Your task to perform on an android device: Go to location settings Image 0: 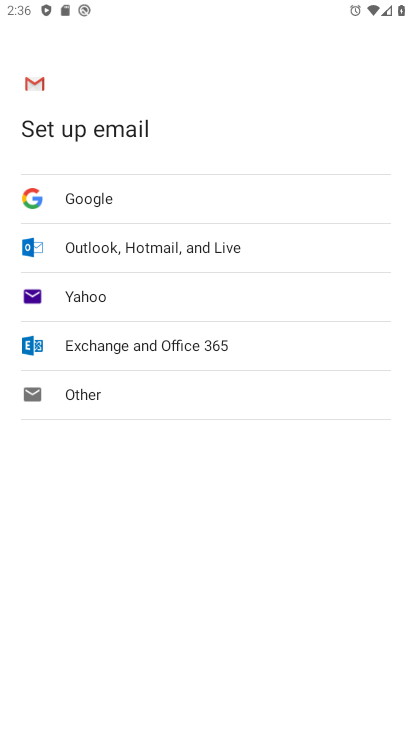
Step 0: press home button
Your task to perform on an android device: Go to location settings Image 1: 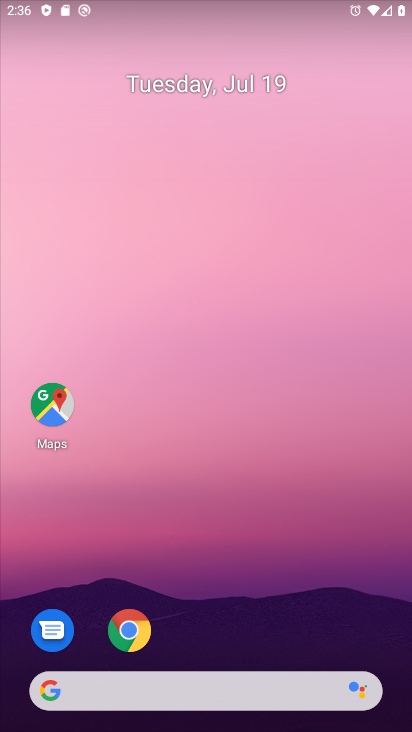
Step 1: drag from (286, 615) to (303, 80)
Your task to perform on an android device: Go to location settings Image 2: 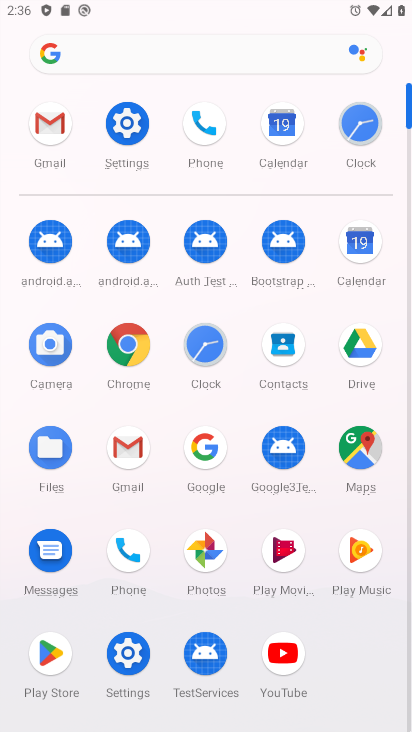
Step 2: click (132, 114)
Your task to perform on an android device: Go to location settings Image 3: 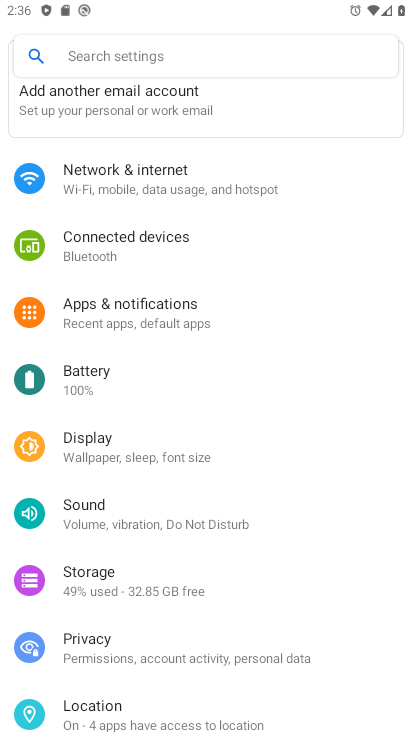
Step 3: drag from (212, 589) to (236, 328)
Your task to perform on an android device: Go to location settings Image 4: 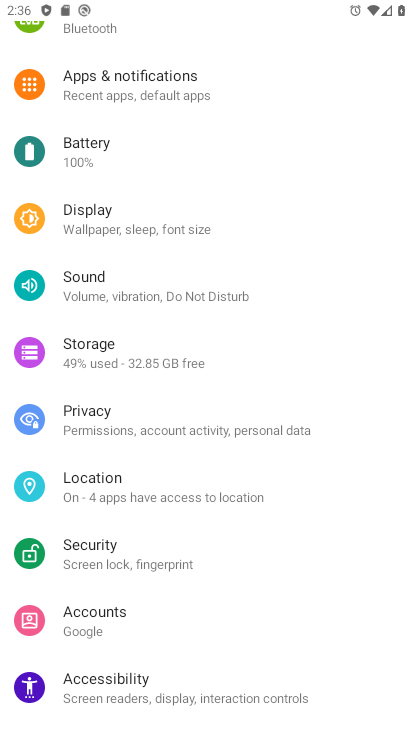
Step 4: click (190, 484)
Your task to perform on an android device: Go to location settings Image 5: 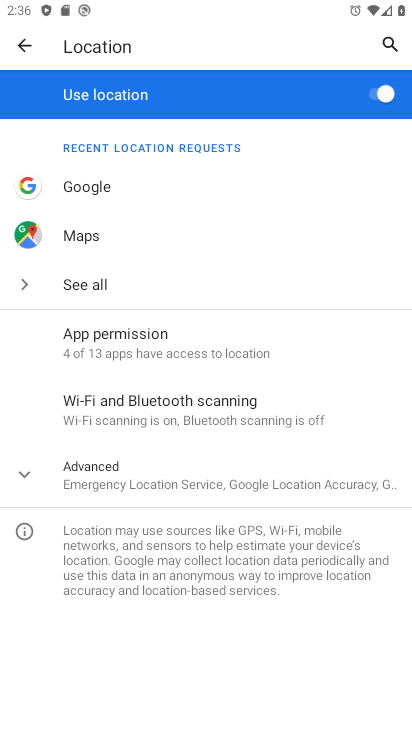
Step 5: task complete